Your task to perform on an android device: turn on showing notifications on the lock screen Image 0: 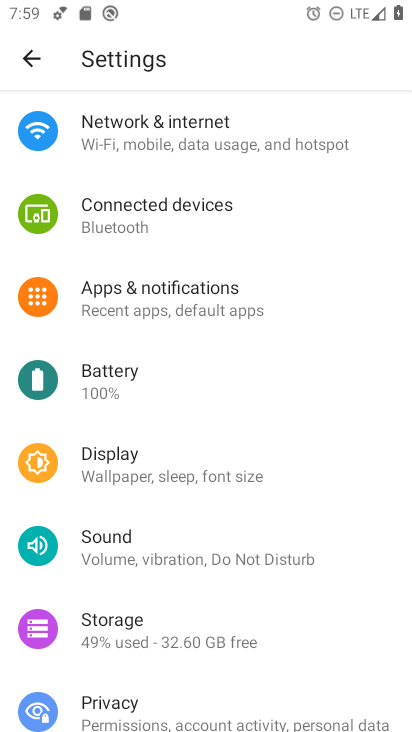
Step 0: click (182, 325)
Your task to perform on an android device: turn on showing notifications on the lock screen Image 1: 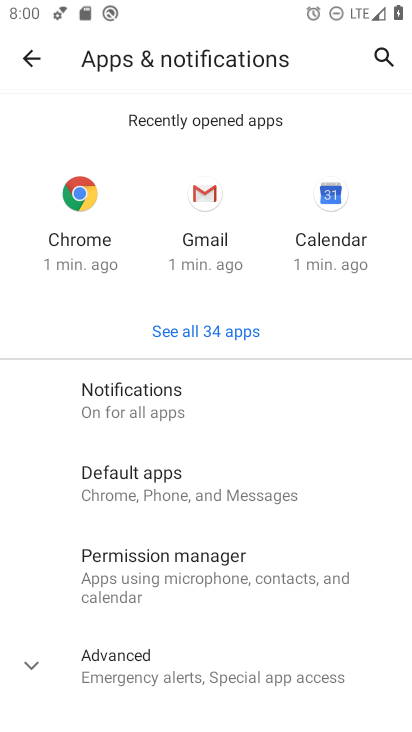
Step 1: click (123, 422)
Your task to perform on an android device: turn on showing notifications on the lock screen Image 2: 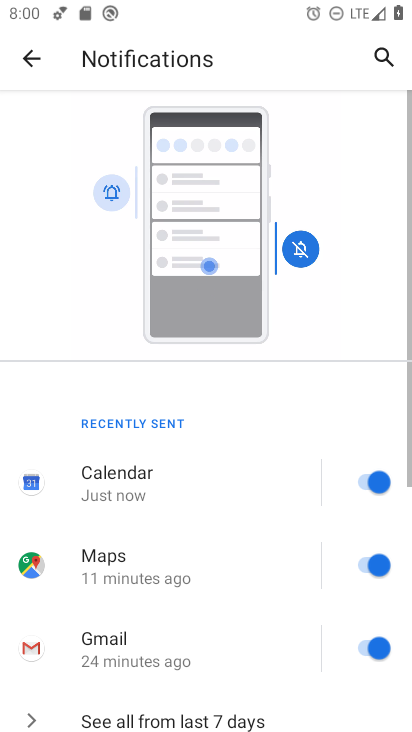
Step 2: drag from (111, 701) to (115, 261)
Your task to perform on an android device: turn on showing notifications on the lock screen Image 3: 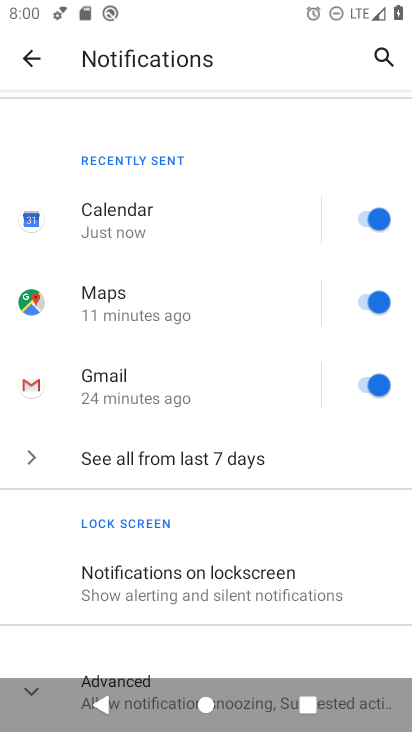
Step 3: drag from (117, 614) to (163, 405)
Your task to perform on an android device: turn on showing notifications on the lock screen Image 4: 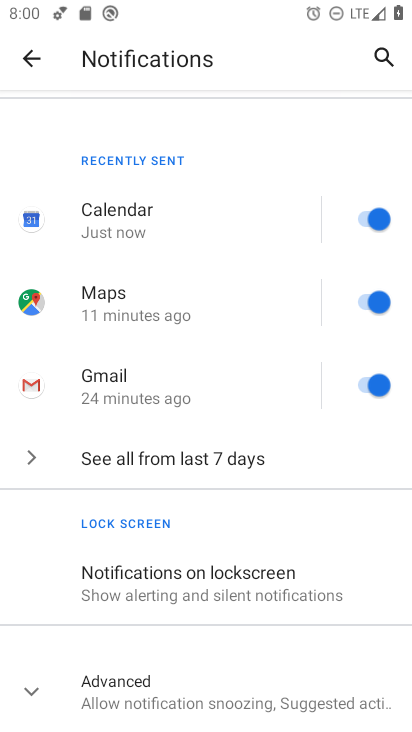
Step 4: click (142, 696)
Your task to perform on an android device: turn on showing notifications on the lock screen Image 5: 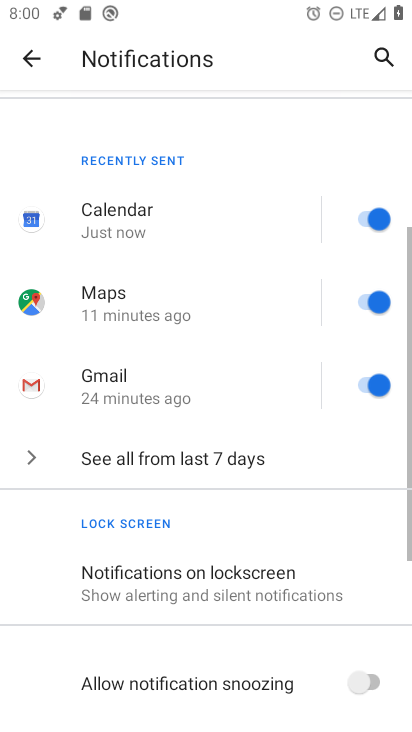
Step 5: click (265, 577)
Your task to perform on an android device: turn on showing notifications on the lock screen Image 6: 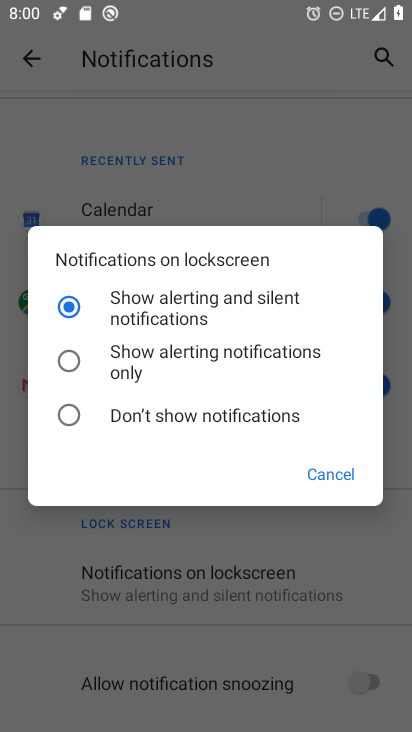
Step 6: click (266, 349)
Your task to perform on an android device: turn on showing notifications on the lock screen Image 7: 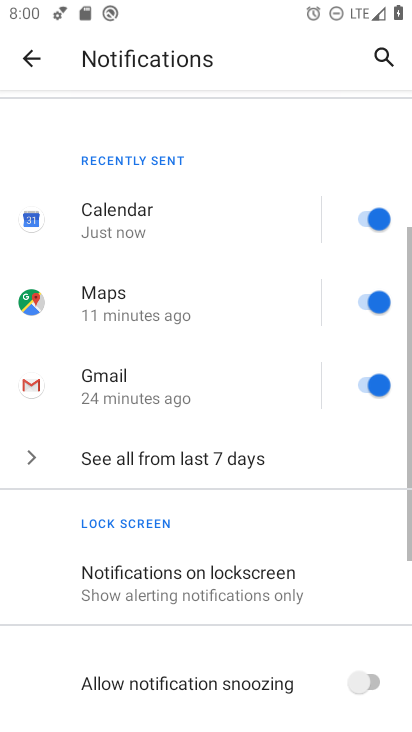
Step 7: task complete